Your task to perform on an android device: Show me the alarms in the clock app Image 0: 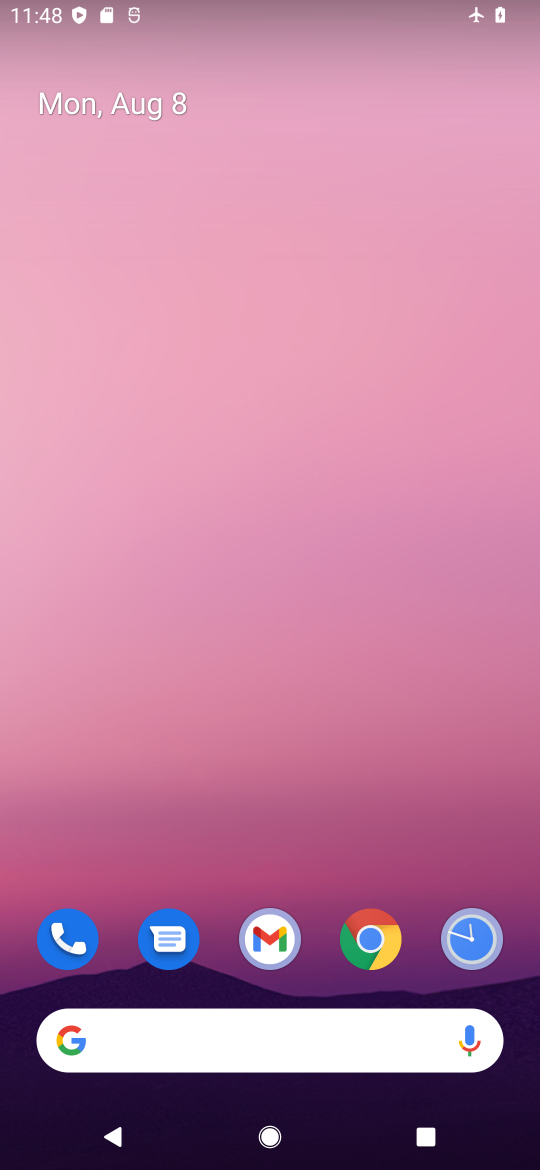
Step 0: click (470, 944)
Your task to perform on an android device: Show me the alarms in the clock app Image 1: 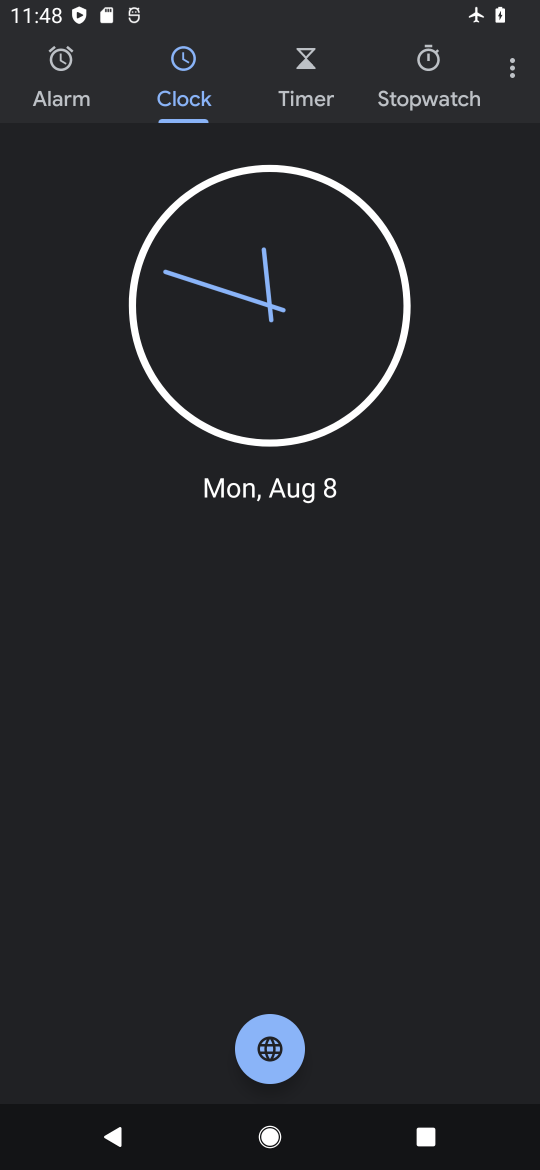
Step 1: click (66, 65)
Your task to perform on an android device: Show me the alarms in the clock app Image 2: 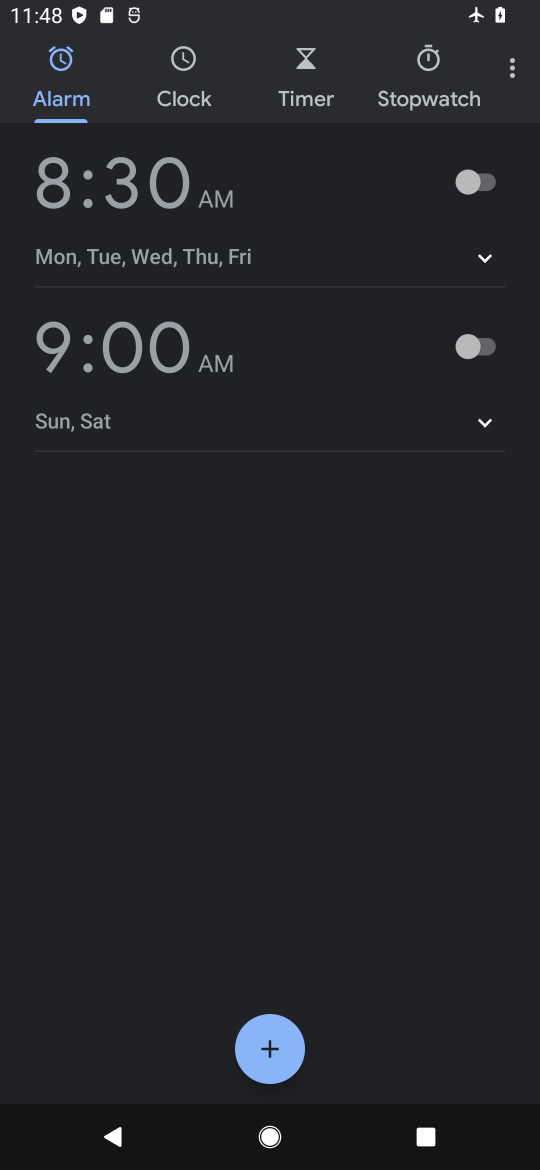
Step 2: click (154, 360)
Your task to perform on an android device: Show me the alarms in the clock app Image 3: 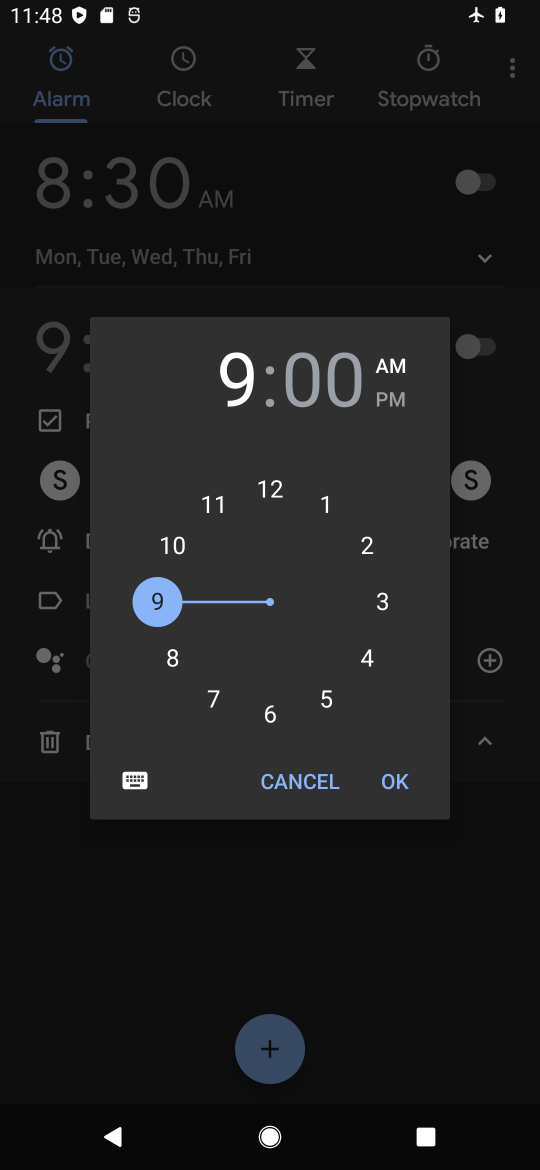
Step 3: click (216, 707)
Your task to perform on an android device: Show me the alarms in the clock app Image 4: 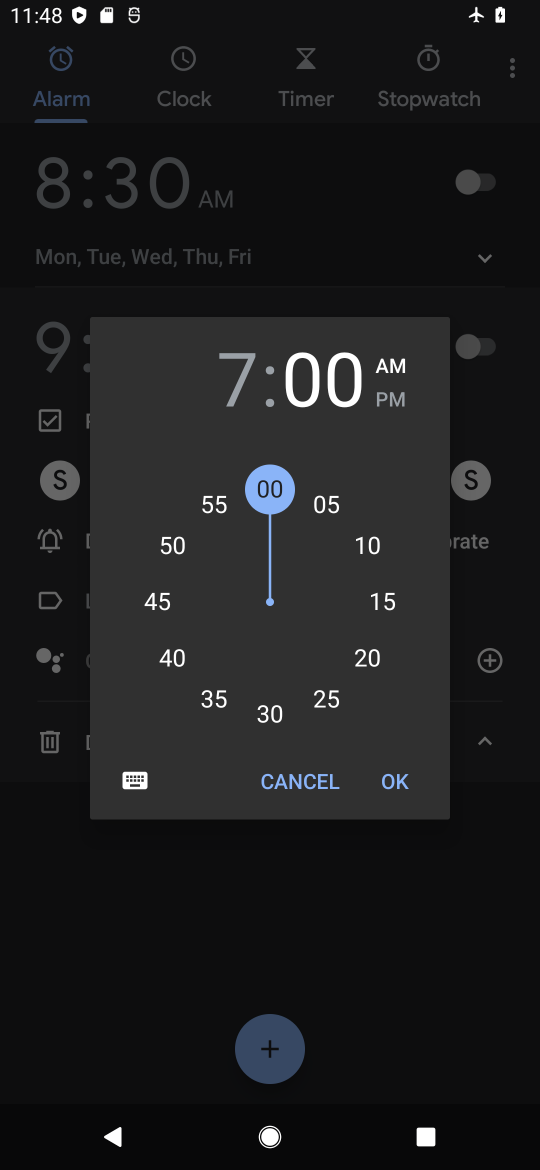
Step 4: click (268, 512)
Your task to perform on an android device: Show me the alarms in the clock app Image 5: 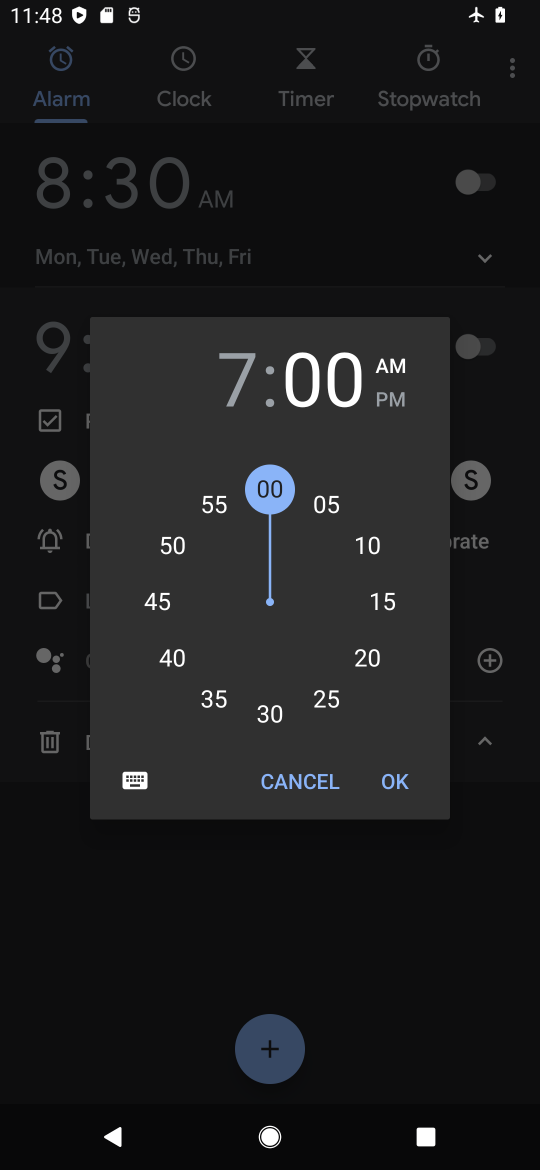
Step 5: click (386, 394)
Your task to perform on an android device: Show me the alarms in the clock app Image 6: 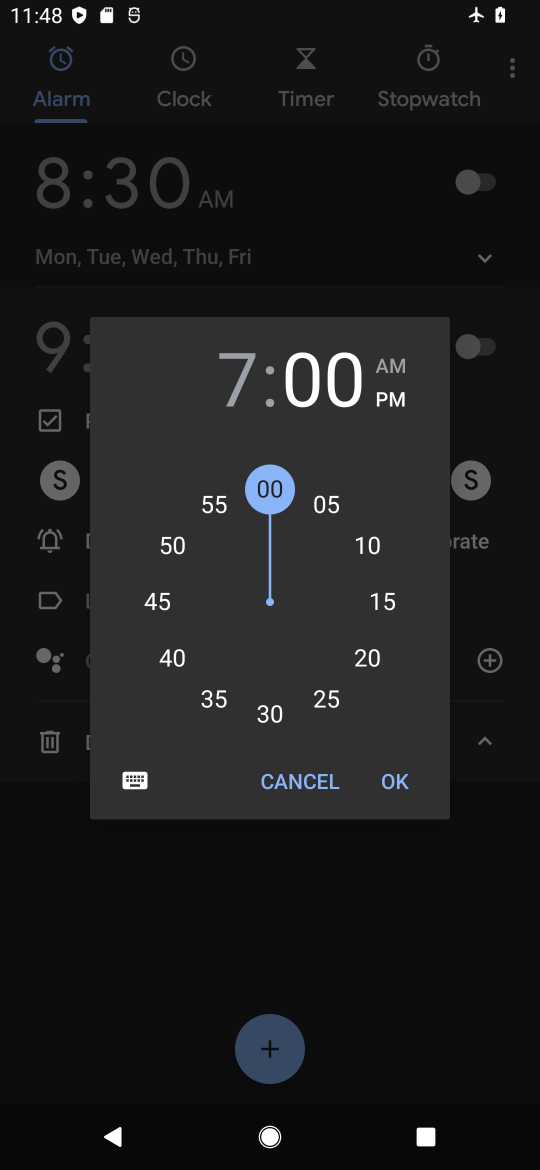
Step 6: click (393, 789)
Your task to perform on an android device: Show me the alarms in the clock app Image 7: 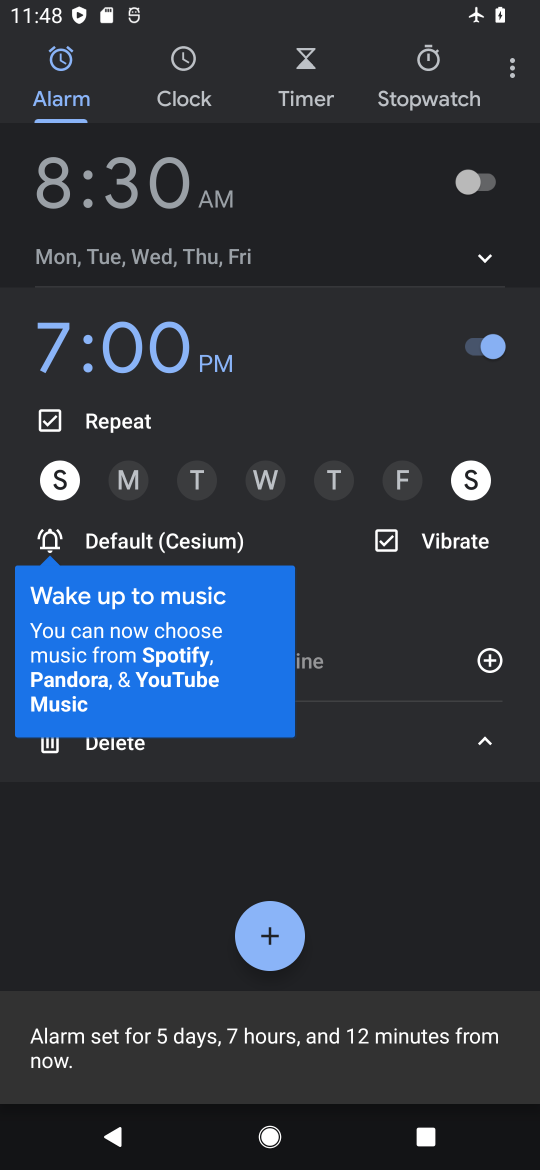
Step 7: click (482, 725)
Your task to perform on an android device: Show me the alarms in the clock app Image 8: 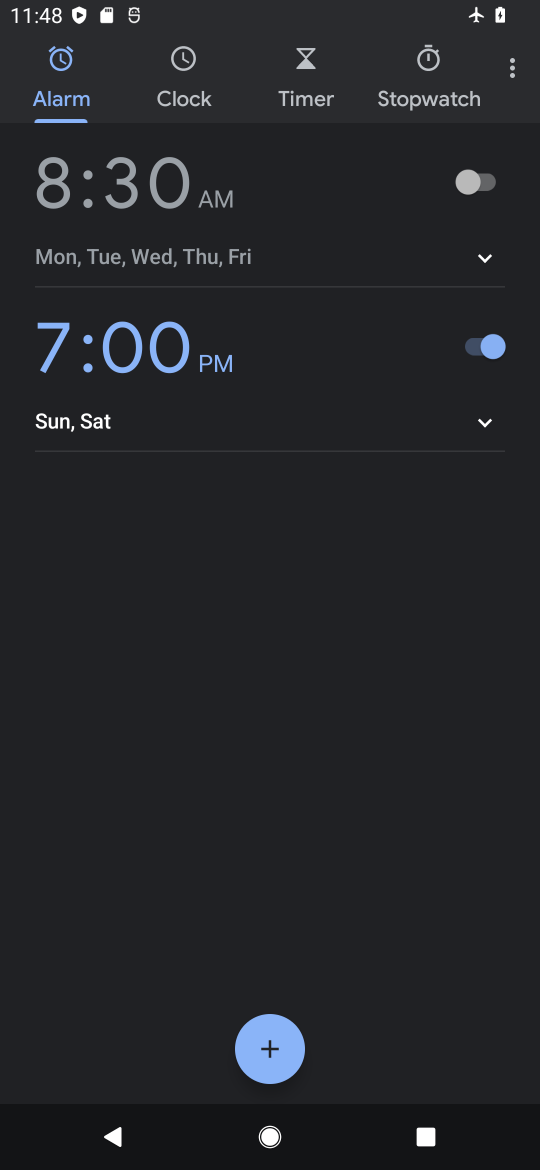
Step 8: task complete